Your task to perform on an android device: Open Chrome and go to settings Image 0: 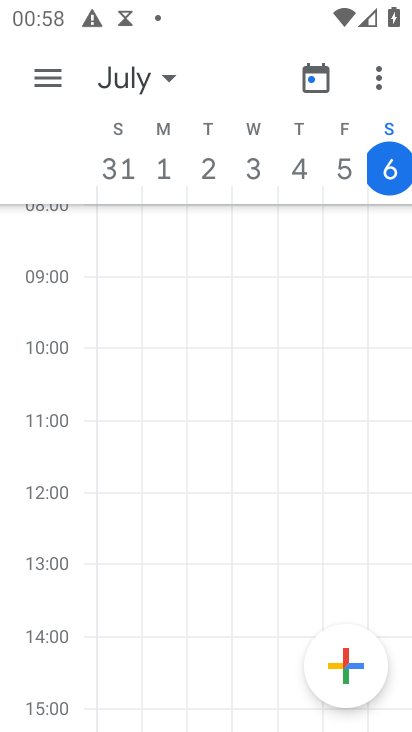
Step 0: press home button
Your task to perform on an android device: Open Chrome and go to settings Image 1: 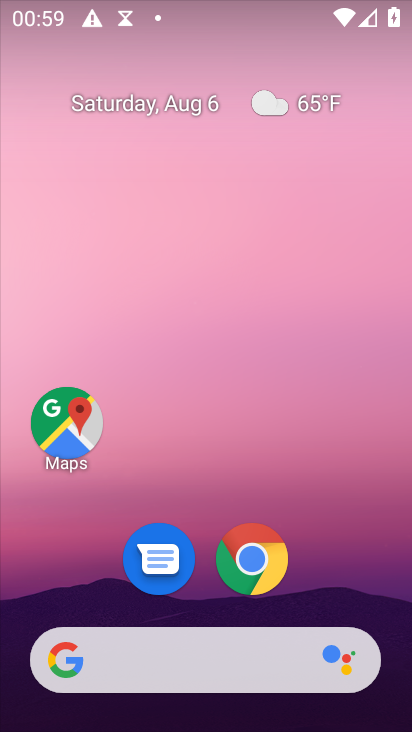
Step 1: click (400, 606)
Your task to perform on an android device: Open Chrome and go to settings Image 2: 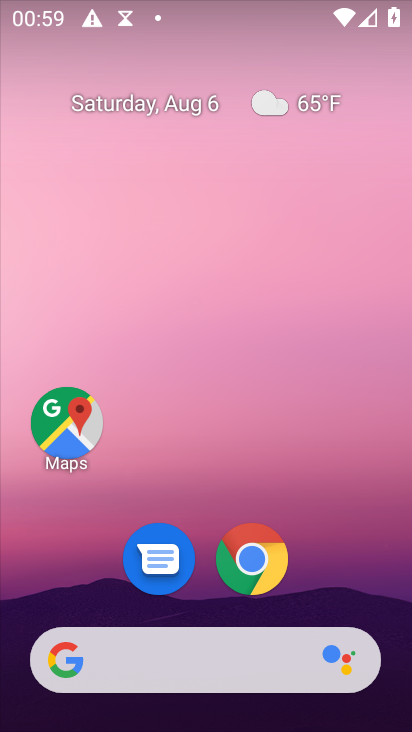
Step 2: click (264, 560)
Your task to perform on an android device: Open Chrome and go to settings Image 3: 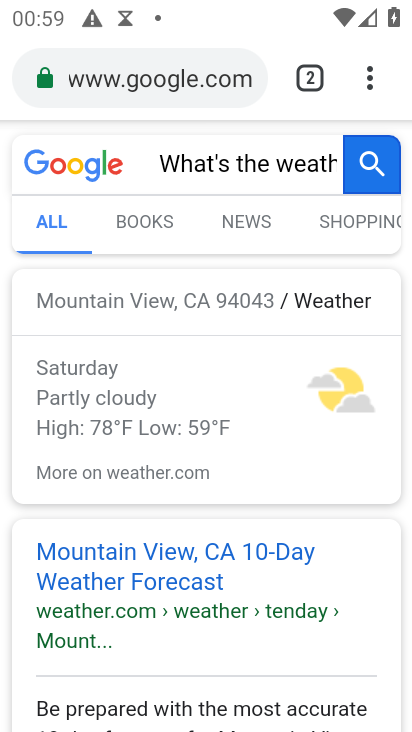
Step 3: click (370, 83)
Your task to perform on an android device: Open Chrome and go to settings Image 4: 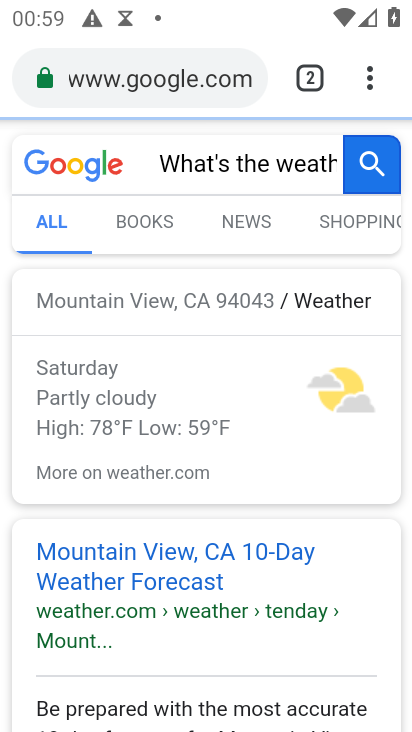
Step 4: click (370, 83)
Your task to perform on an android device: Open Chrome and go to settings Image 5: 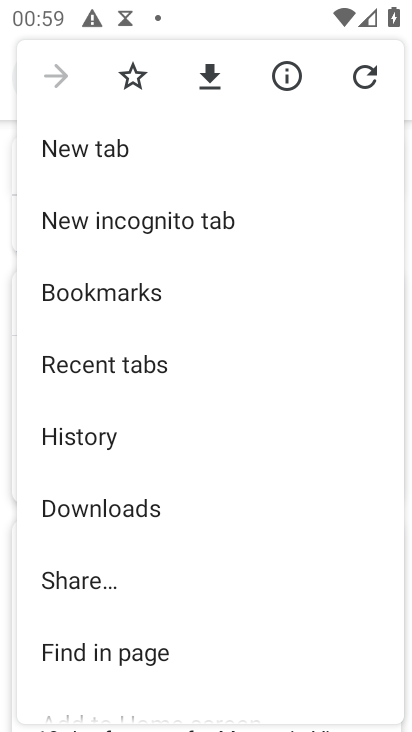
Step 5: drag from (207, 687) to (163, 176)
Your task to perform on an android device: Open Chrome and go to settings Image 6: 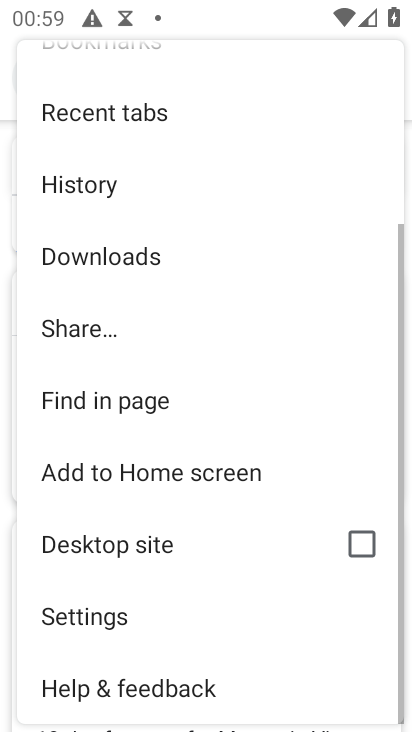
Step 6: click (116, 618)
Your task to perform on an android device: Open Chrome and go to settings Image 7: 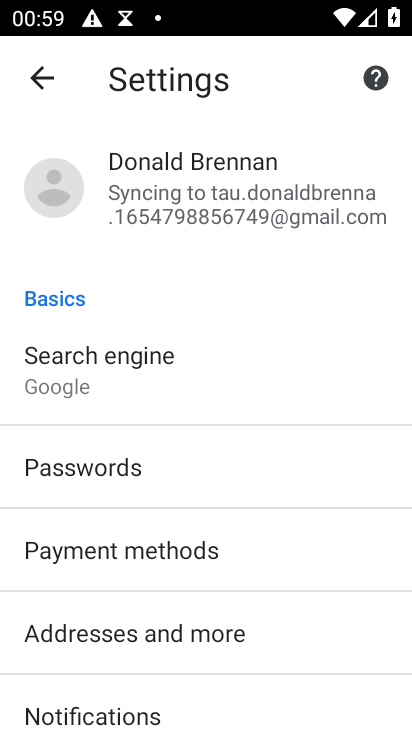
Step 7: task complete